Your task to perform on an android device: Is it going to rain tomorrow? Image 0: 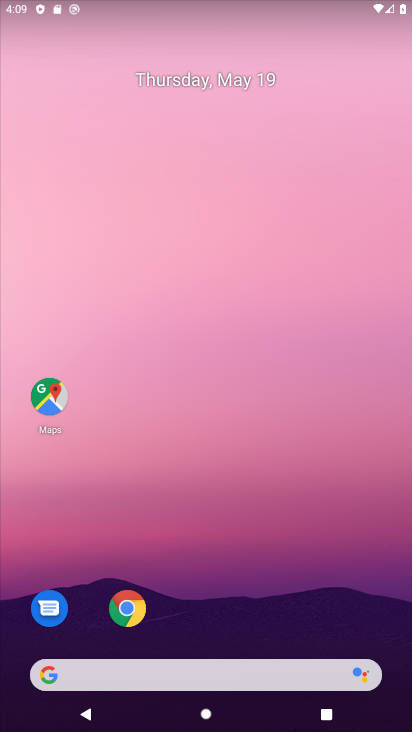
Step 0: click (131, 601)
Your task to perform on an android device: Is it going to rain tomorrow? Image 1: 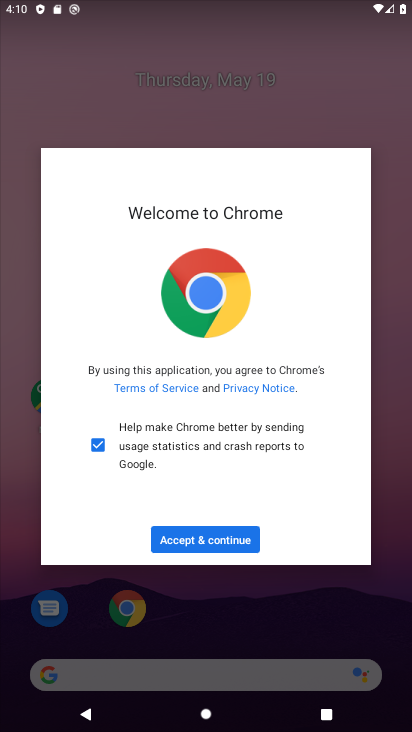
Step 1: click (215, 543)
Your task to perform on an android device: Is it going to rain tomorrow? Image 2: 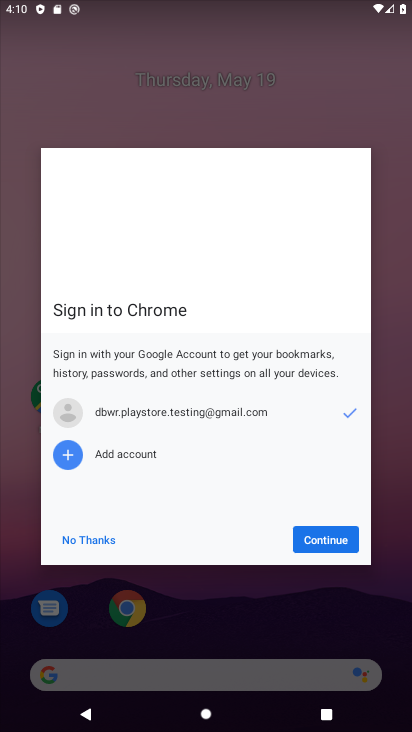
Step 2: click (340, 534)
Your task to perform on an android device: Is it going to rain tomorrow? Image 3: 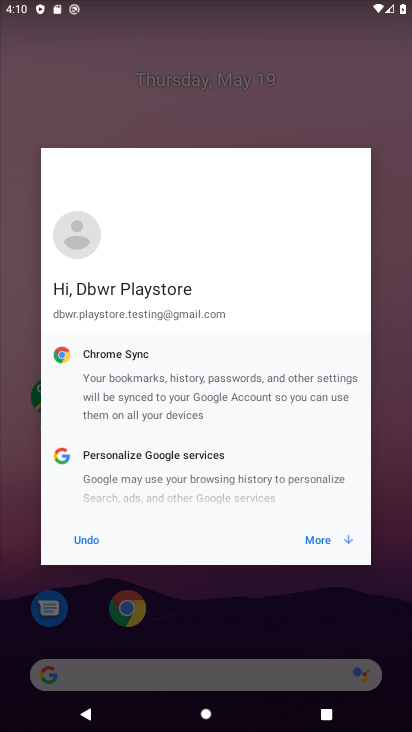
Step 3: click (338, 536)
Your task to perform on an android device: Is it going to rain tomorrow? Image 4: 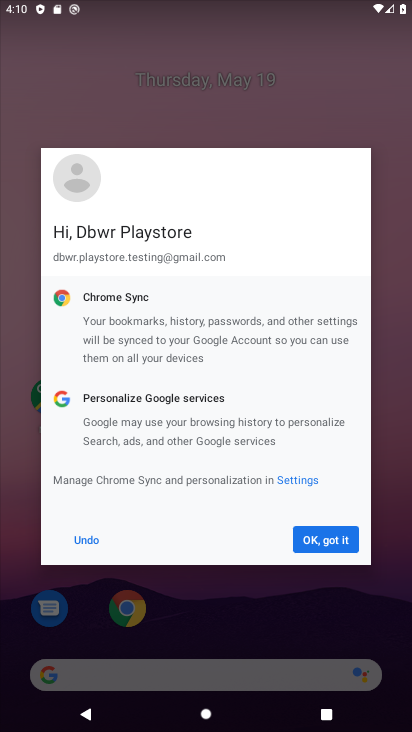
Step 4: click (338, 536)
Your task to perform on an android device: Is it going to rain tomorrow? Image 5: 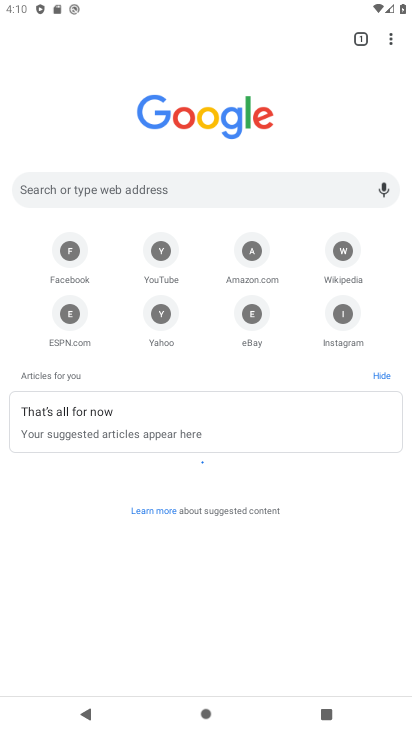
Step 5: click (202, 187)
Your task to perform on an android device: Is it going to rain tomorrow? Image 6: 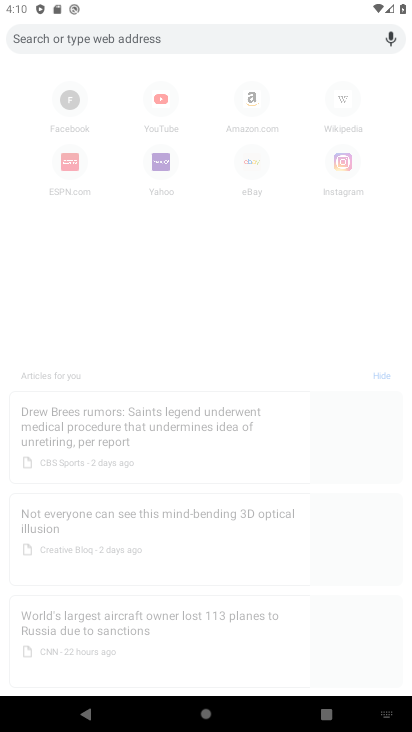
Step 6: type "weather"
Your task to perform on an android device: Is it going to rain tomorrow? Image 7: 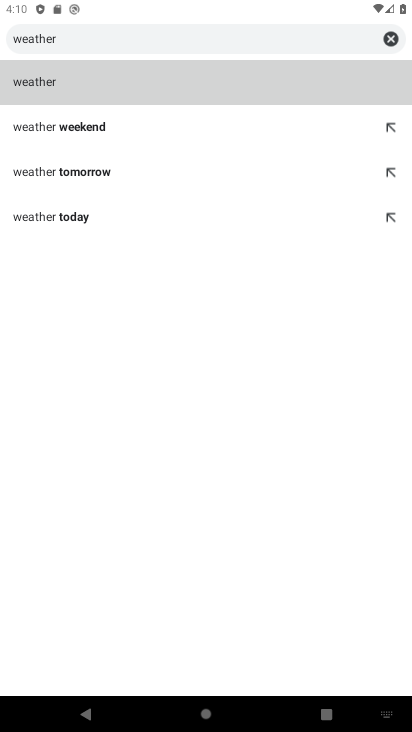
Step 7: click (44, 82)
Your task to perform on an android device: Is it going to rain tomorrow? Image 8: 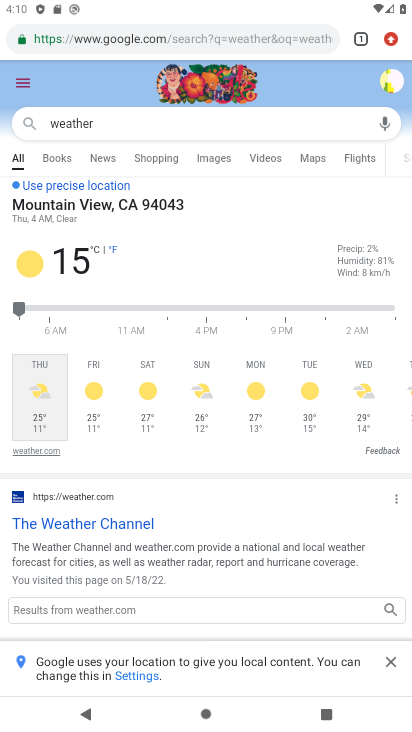
Step 8: click (91, 405)
Your task to perform on an android device: Is it going to rain tomorrow? Image 9: 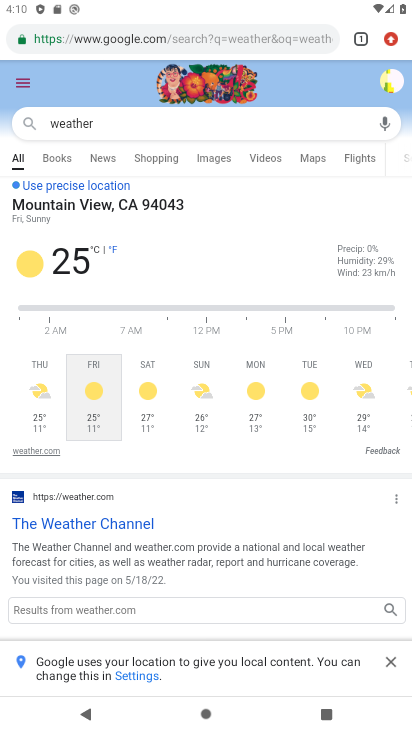
Step 9: task complete